Your task to perform on an android device: open app "Pluto TV - Live TV and Movies" (install if not already installed) Image 0: 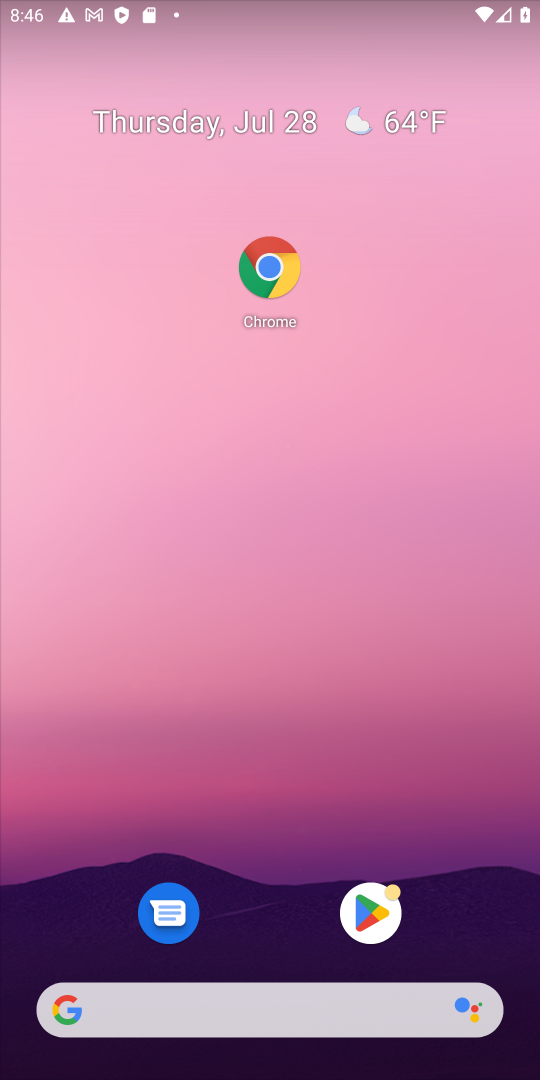
Step 0: press home button
Your task to perform on an android device: open app "Pluto TV - Live TV and Movies" (install if not already installed) Image 1: 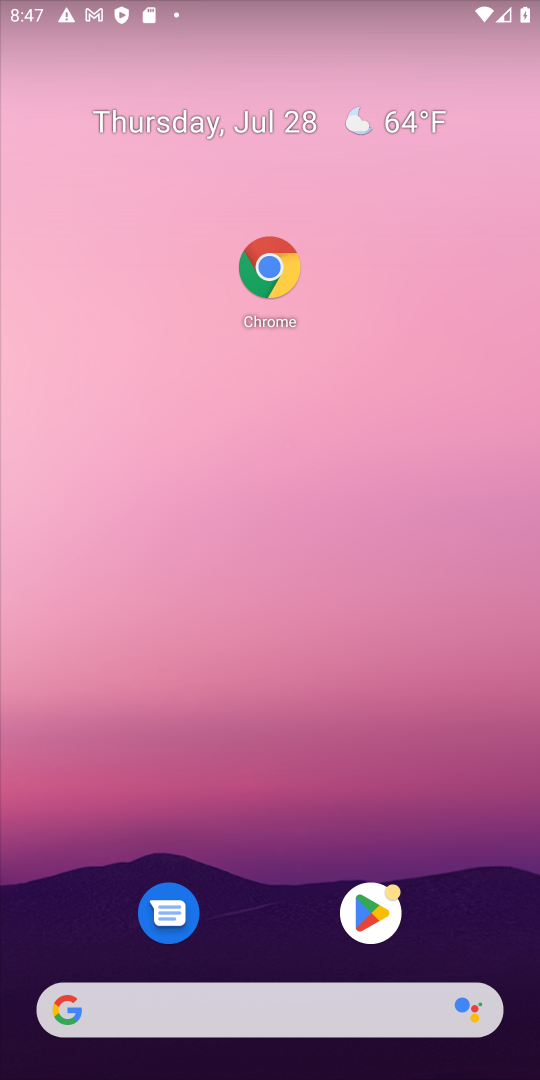
Step 1: click (357, 957)
Your task to perform on an android device: open app "Pluto TV - Live TV and Movies" (install if not already installed) Image 2: 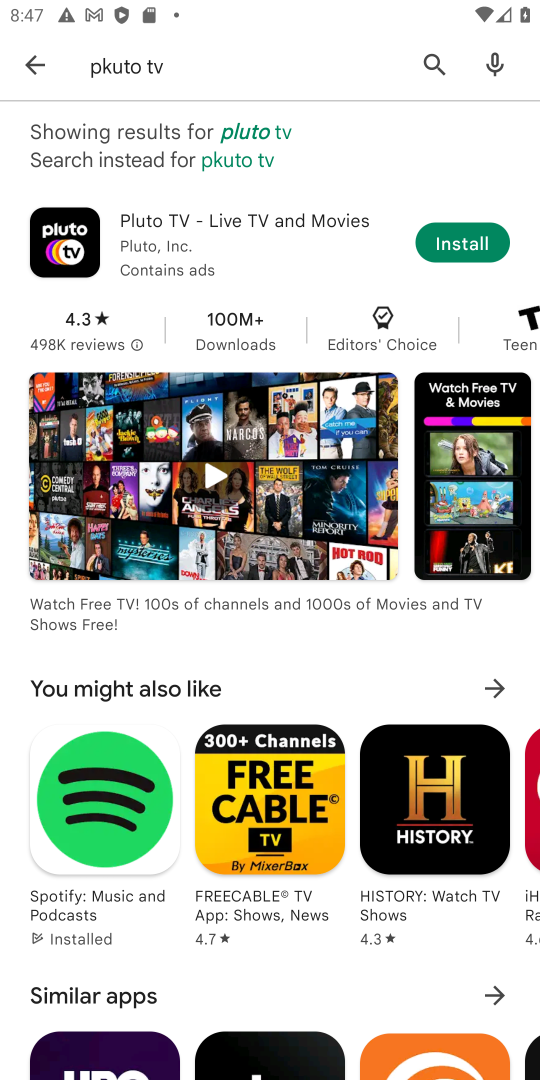
Step 2: click (446, 248)
Your task to perform on an android device: open app "Pluto TV - Live TV and Movies" (install if not already installed) Image 3: 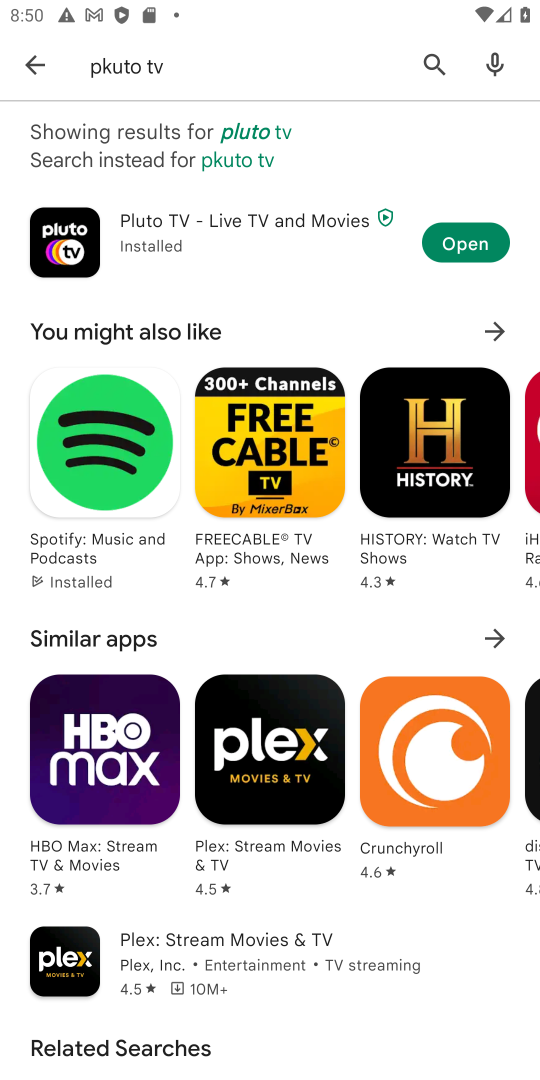
Step 3: click (434, 242)
Your task to perform on an android device: open app "Pluto TV - Live TV and Movies" (install if not already installed) Image 4: 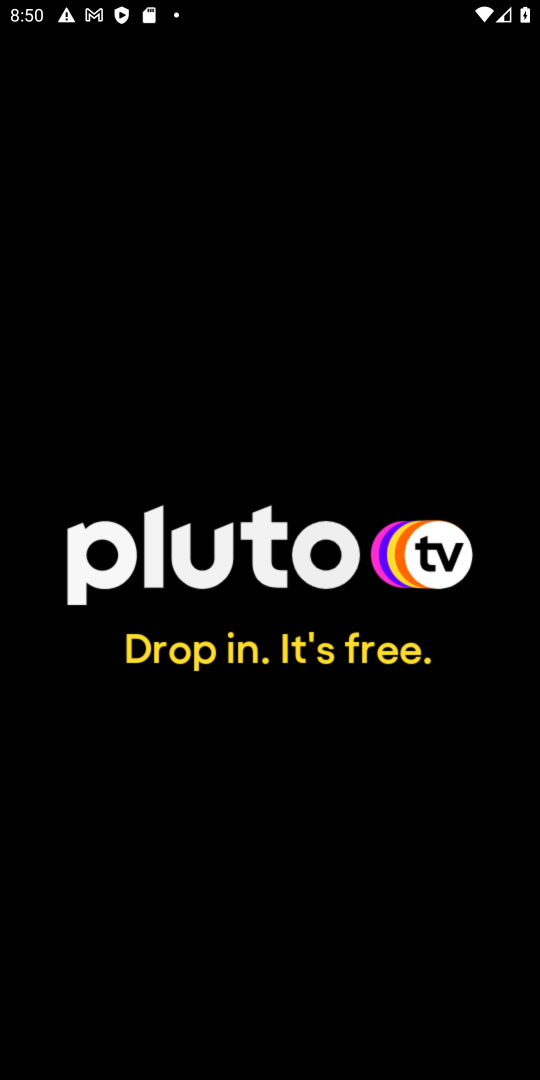
Step 4: task complete